Your task to perform on an android device: turn on showing notifications on the lock screen Image 0: 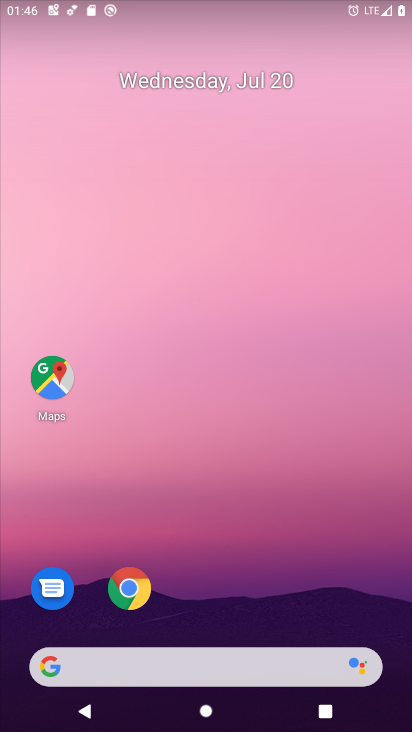
Step 0: drag from (244, 485) to (287, 301)
Your task to perform on an android device: turn on showing notifications on the lock screen Image 1: 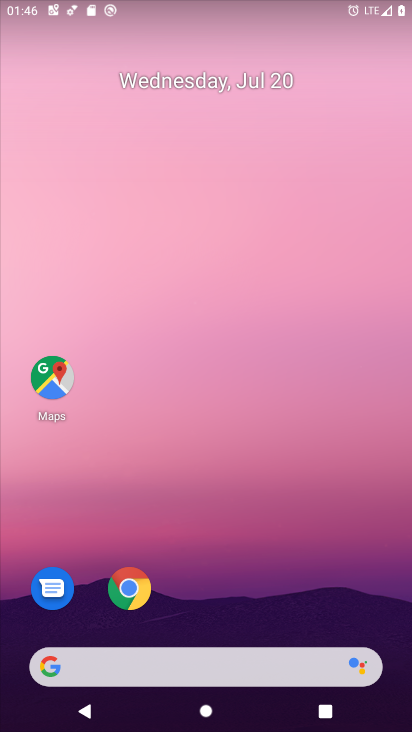
Step 1: drag from (227, 631) to (220, 119)
Your task to perform on an android device: turn on showing notifications on the lock screen Image 2: 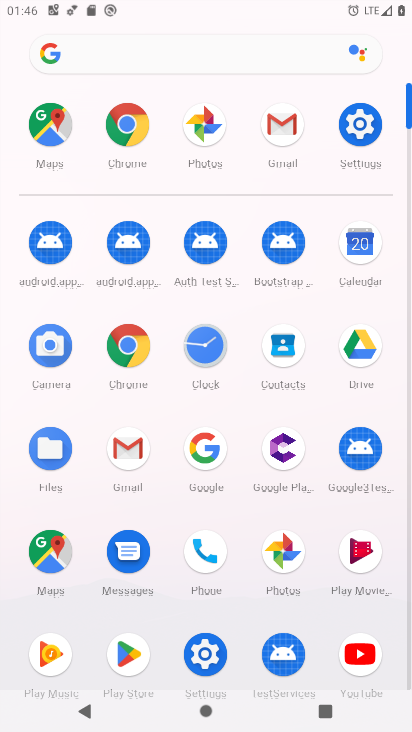
Step 2: click (372, 124)
Your task to perform on an android device: turn on showing notifications on the lock screen Image 3: 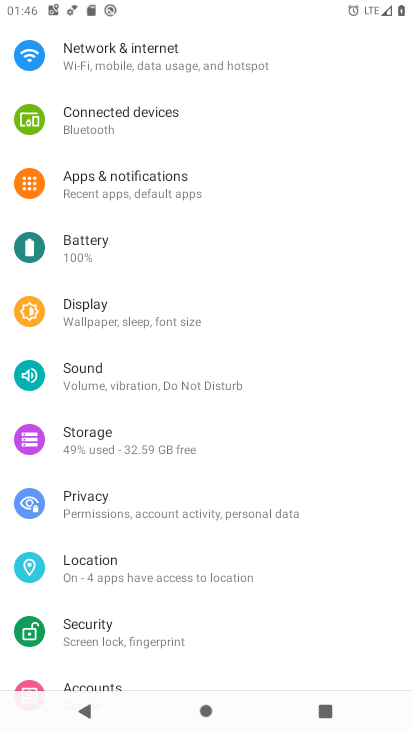
Step 3: click (151, 179)
Your task to perform on an android device: turn on showing notifications on the lock screen Image 4: 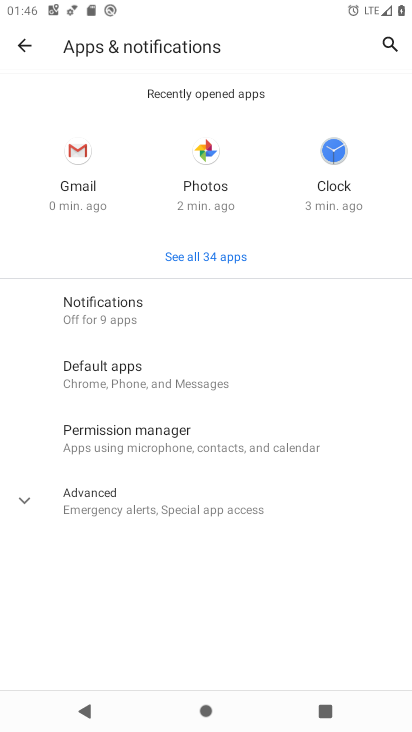
Step 4: click (157, 307)
Your task to perform on an android device: turn on showing notifications on the lock screen Image 5: 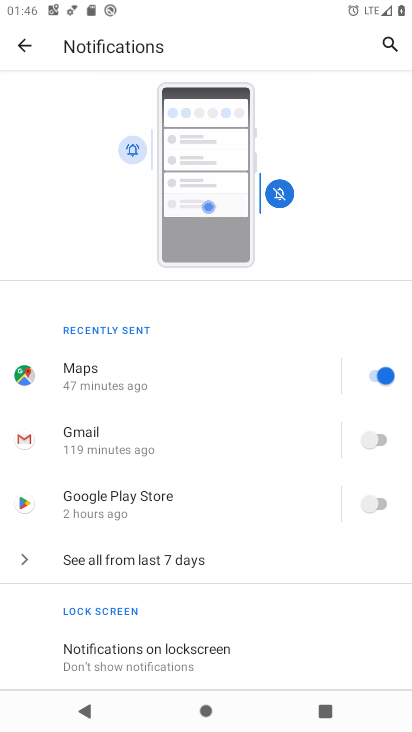
Step 5: click (211, 638)
Your task to perform on an android device: turn on showing notifications on the lock screen Image 6: 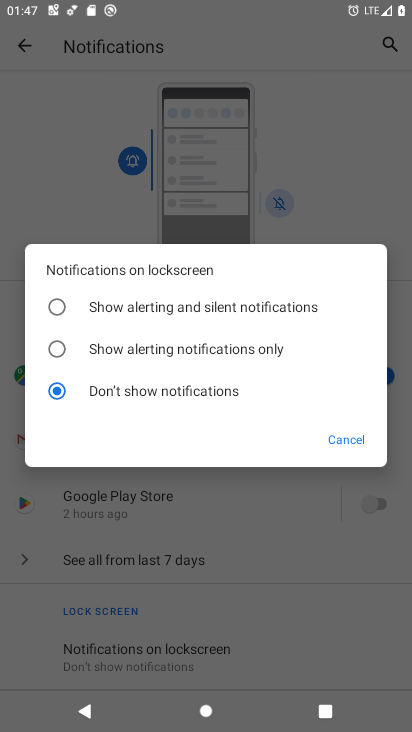
Step 6: click (163, 303)
Your task to perform on an android device: turn on showing notifications on the lock screen Image 7: 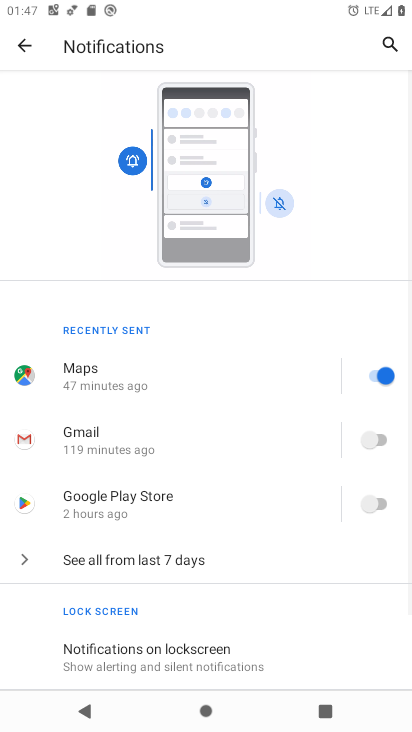
Step 7: task complete